Your task to perform on an android device: toggle notification dots Image 0: 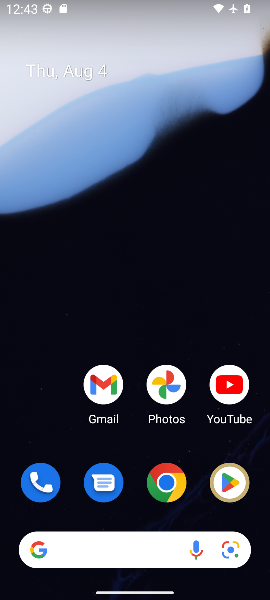
Step 0: drag from (134, 438) to (153, 82)
Your task to perform on an android device: toggle notification dots Image 1: 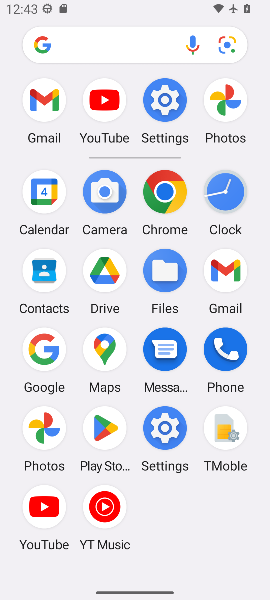
Step 1: click (160, 104)
Your task to perform on an android device: toggle notification dots Image 2: 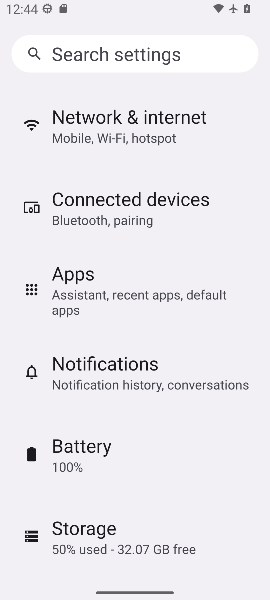
Step 2: click (157, 365)
Your task to perform on an android device: toggle notification dots Image 3: 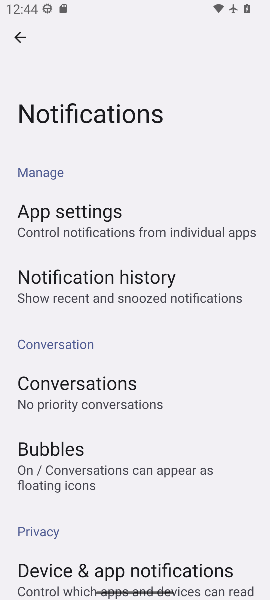
Step 3: drag from (120, 470) to (121, 235)
Your task to perform on an android device: toggle notification dots Image 4: 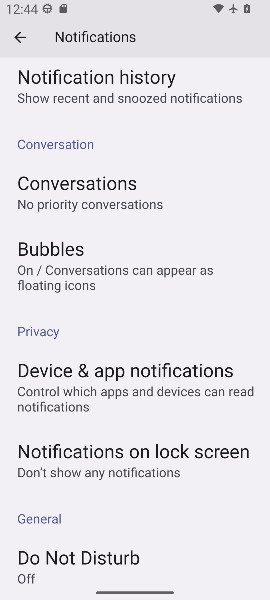
Step 4: drag from (131, 454) to (127, 220)
Your task to perform on an android device: toggle notification dots Image 5: 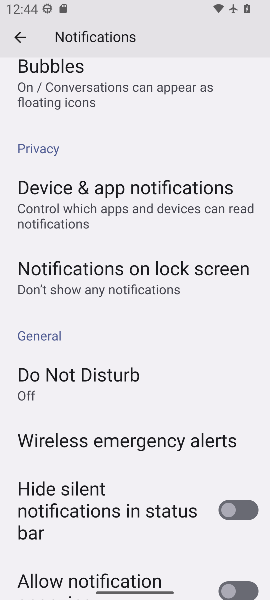
Step 5: drag from (138, 422) to (139, 168)
Your task to perform on an android device: toggle notification dots Image 6: 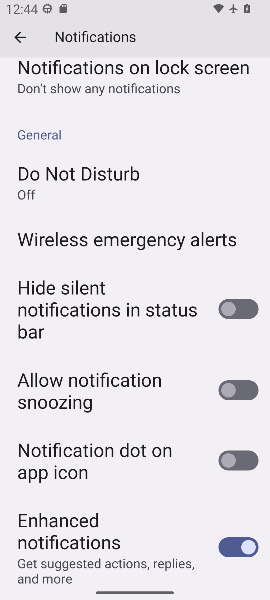
Step 6: drag from (151, 431) to (144, 160)
Your task to perform on an android device: toggle notification dots Image 7: 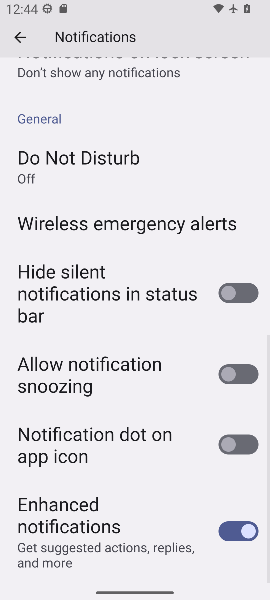
Step 7: drag from (144, 160) to (143, 455)
Your task to perform on an android device: toggle notification dots Image 8: 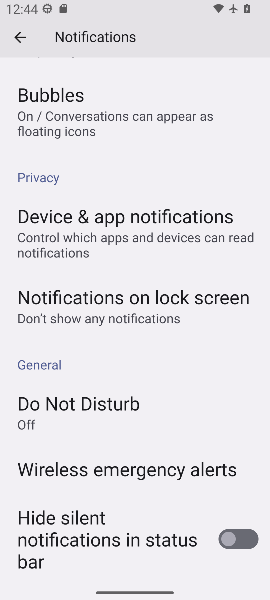
Step 8: drag from (126, 205) to (126, 499)
Your task to perform on an android device: toggle notification dots Image 9: 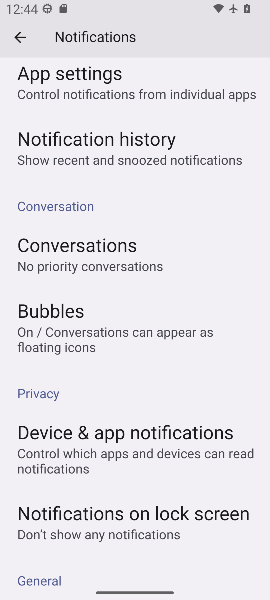
Step 9: drag from (127, 195) to (128, 472)
Your task to perform on an android device: toggle notification dots Image 10: 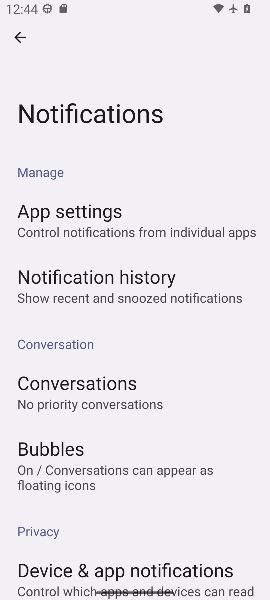
Step 10: drag from (124, 474) to (116, 203)
Your task to perform on an android device: toggle notification dots Image 11: 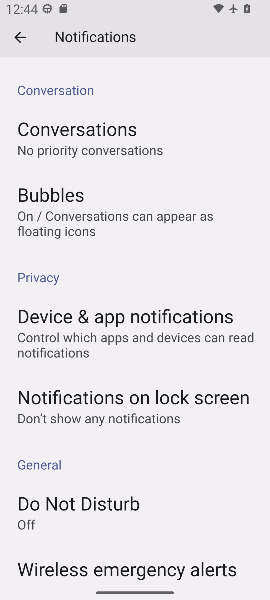
Step 11: drag from (127, 326) to (127, 297)
Your task to perform on an android device: toggle notification dots Image 12: 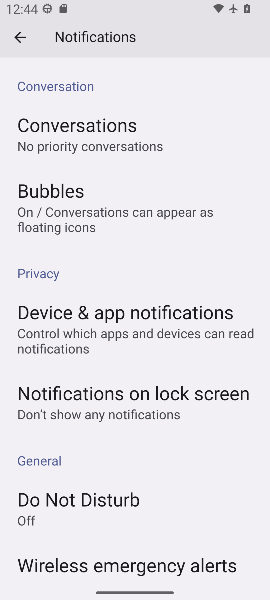
Step 12: click (129, 334)
Your task to perform on an android device: toggle notification dots Image 13: 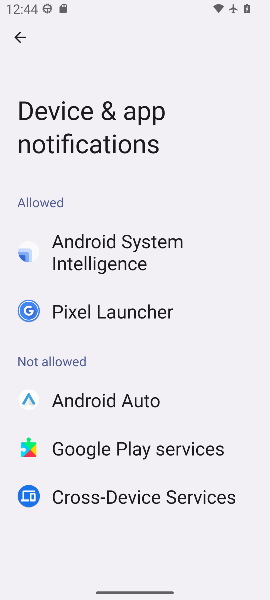
Step 13: click (18, 39)
Your task to perform on an android device: toggle notification dots Image 14: 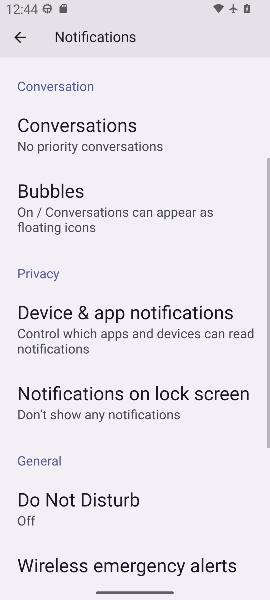
Step 14: drag from (121, 168) to (143, 412)
Your task to perform on an android device: toggle notification dots Image 15: 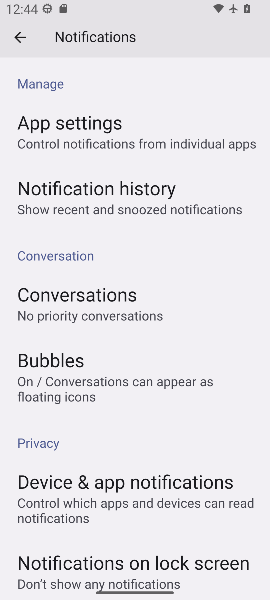
Step 15: drag from (146, 186) to (155, 443)
Your task to perform on an android device: toggle notification dots Image 16: 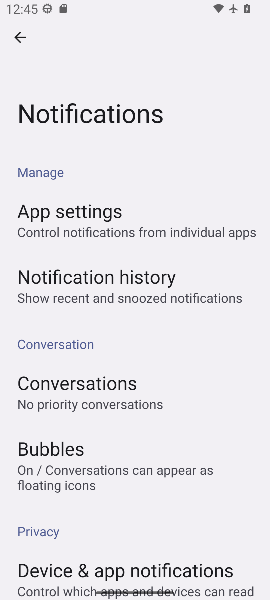
Step 16: click (135, 300)
Your task to perform on an android device: toggle notification dots Image 17: 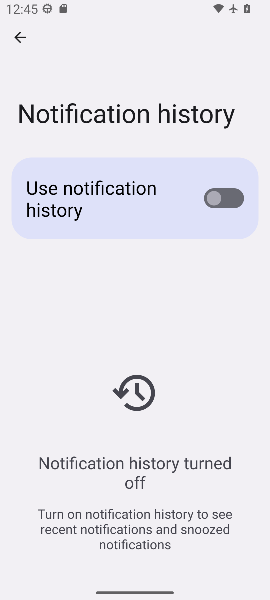
Step 17: click (15, 36)
Your task to perform on an android device: toggle notification dots Image 18: 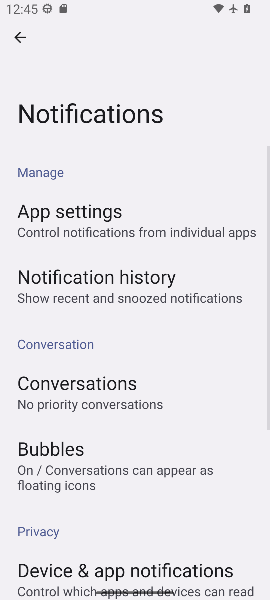
Step 18: drag from (111, 455) to (112, 244)
Your task to perform on an android device: toggle notification dots Image 19: 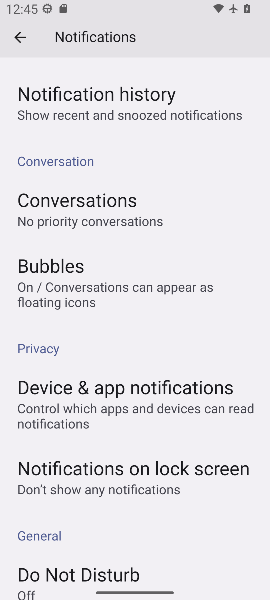
Step 19: drag from (121, 414) to (121, 293)
Your task to perform on an android device: toggle notification dots Image 20: 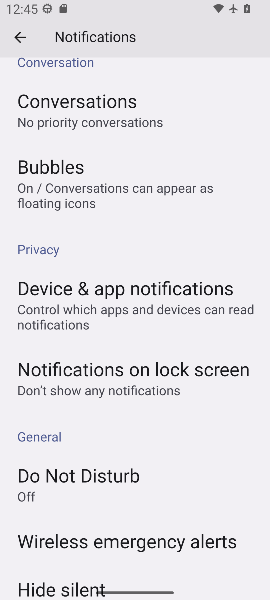
Step 20: drag from (122, 425) to (122, 192)
Your task to perform on an android device: toggle notification dots Image 21: 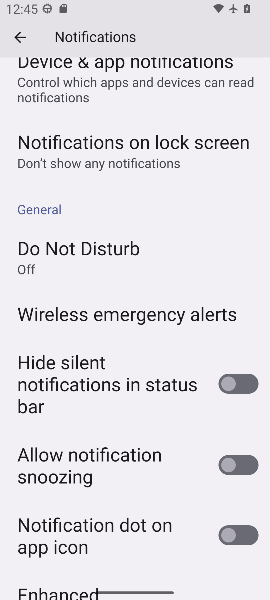
Step 21: click (232, 538)
Your task to perform on an android device: toggle notification dots Image 22: 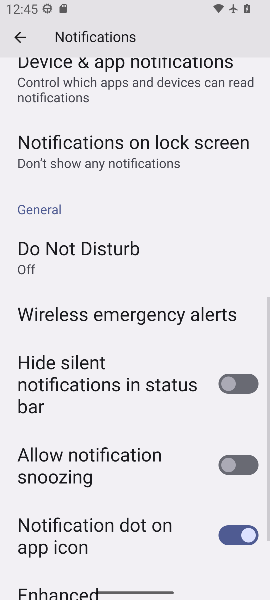
Step 22: task complete